Your task to perform on an android device: turn on data saver in the chrome app Image 0: 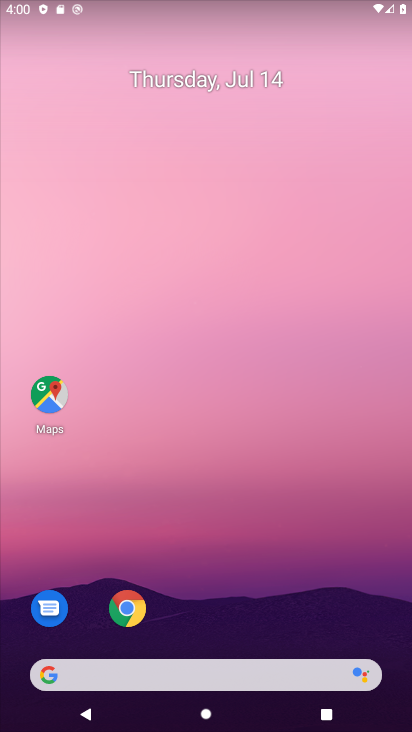
Step 0: click (138, 616)
Your task to perform on an android device: turn on data saver in the chrome app Image 1: 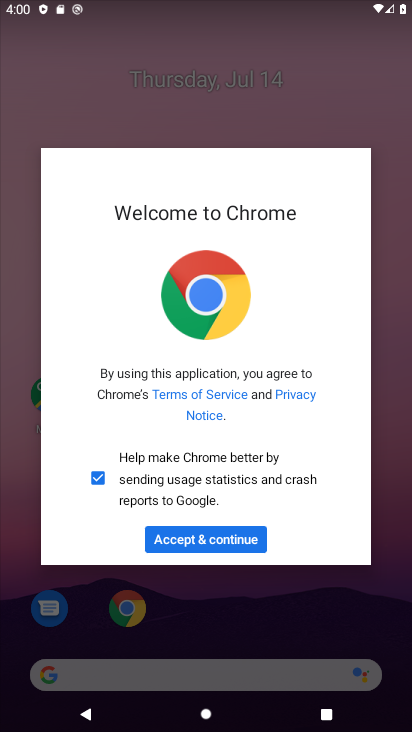
Step 1: click (242, 534)
Your task to perform on an android device: turn on data saver in the chrome app Image 2: 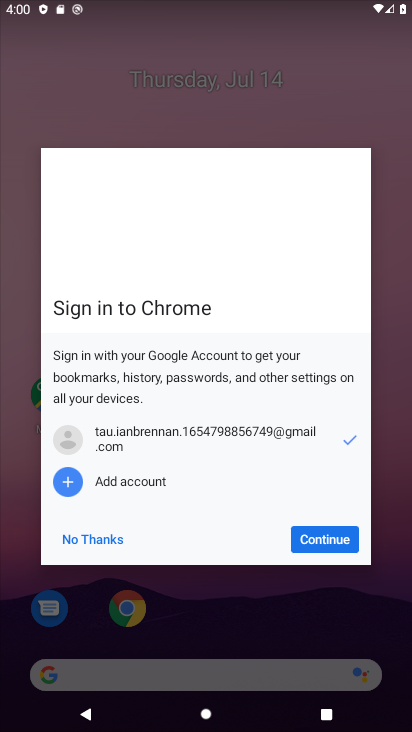
Step 2: click (317, 543)
Your task to perform on an android device: turn on data saver in the chrome app Image 3: 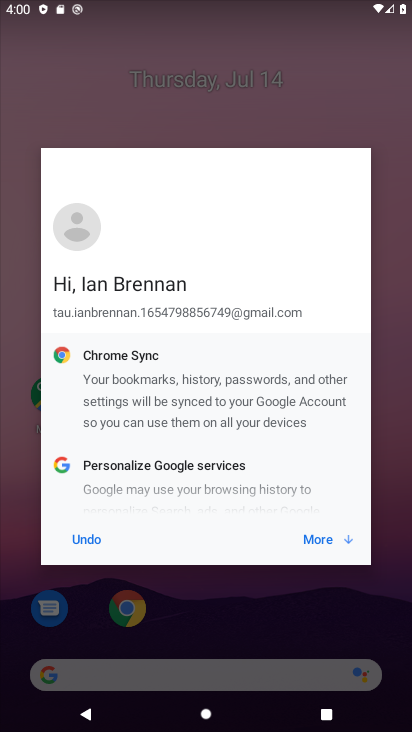
Step 3: click (315, 535)
Your task to perform on an android device: turn on data saver in the chrome app Image 4: 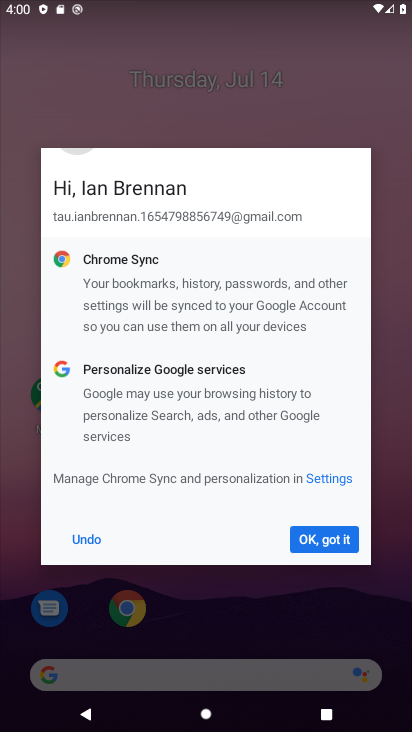
Step 4: click (342, 533)
Your task to perform on an android device: turn on data saver in the chrome app Image 5: 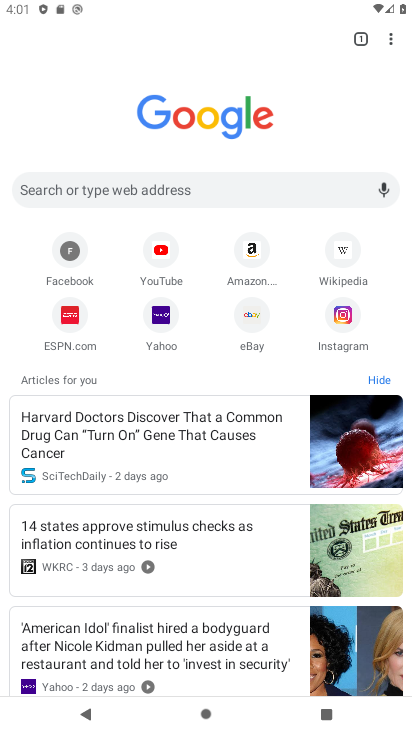
Step 5: click (388, 40)
Your task to perform on an android device: turn on data saver in the chrome app Image 6: 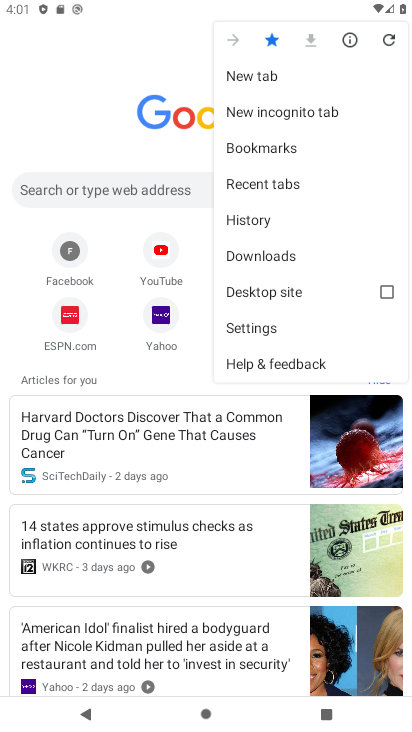
Step 6: click (270, 330)
Your task to perform on an android device: turn on data saver in the chrome app Image 7: 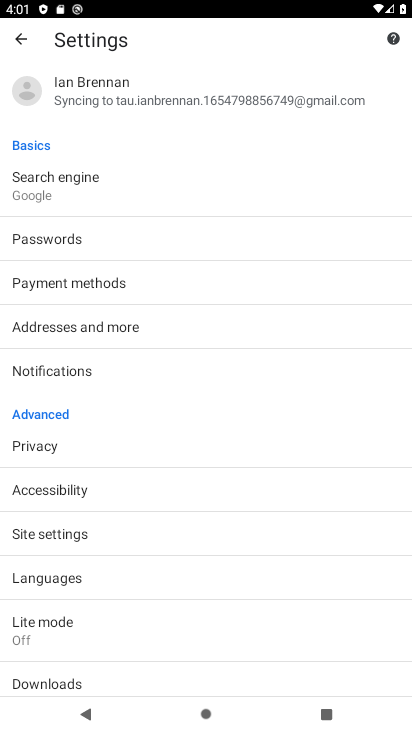
Step 7: click (115, 636)
Your task to perform on an android device: turn on data saver in the chrome app Image 8: 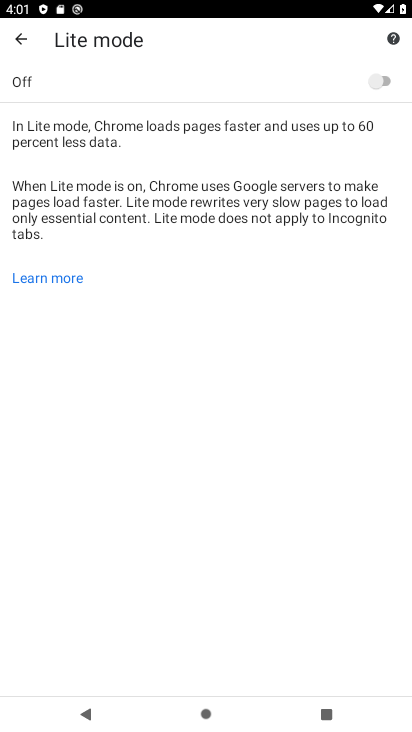
Step 8: click (382, 79)
Your task to perform on an android device: turn on data saver in the chrome app Image 9: 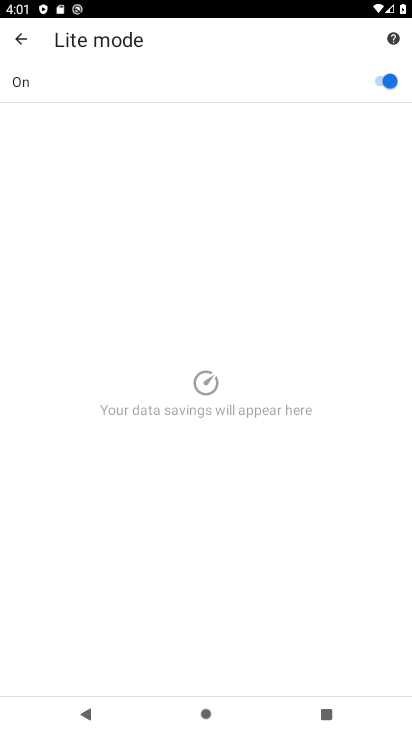
Step 9: task complete